Your task to perform on an android device: Open maps Image 0: 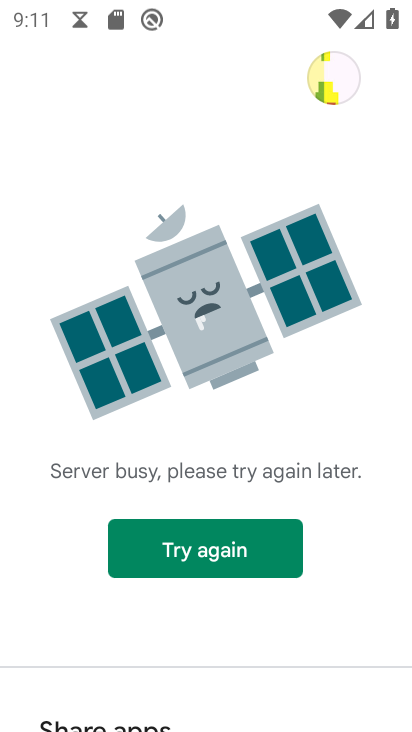
Step 0: press home button
Your task to perform on an android device: Open maps Image 1: 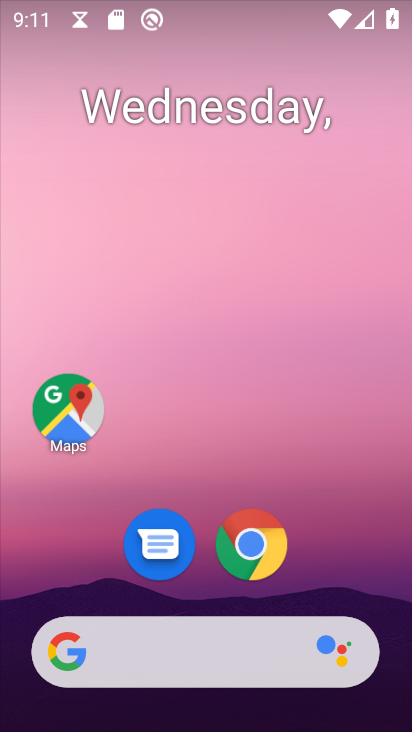
Step 1: drag from (175, 663) to (317, 97)
Your task to perform on an android device: Open maps Image 2: 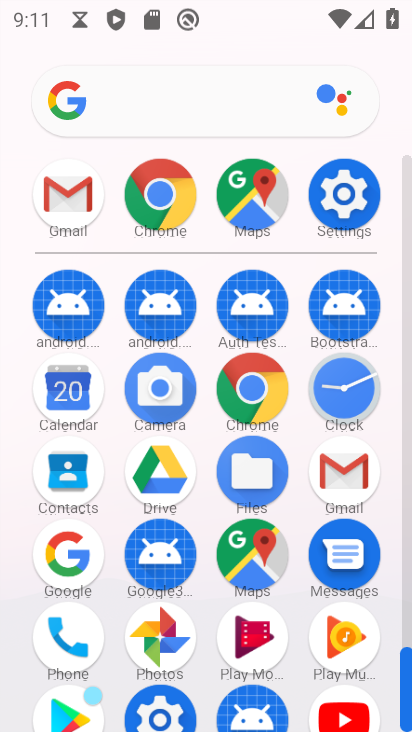
Step 2: click (264, 210)
Your task to perform on an android device: Open maps Image 3: 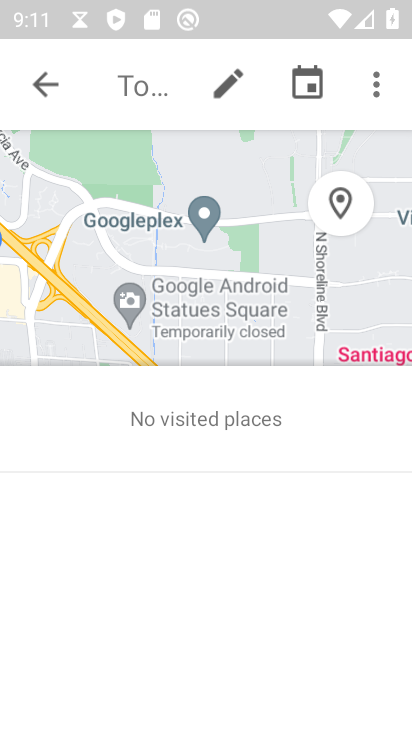
Step 3: click (45, 84)
Your task to perform on an android device: Open maps Image 4: 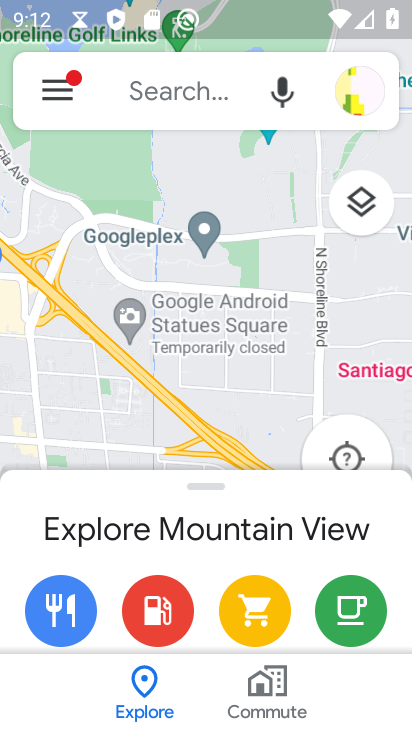
Step 4: task complete